Your task to perform on an android device: Go to Android settings Image 0: 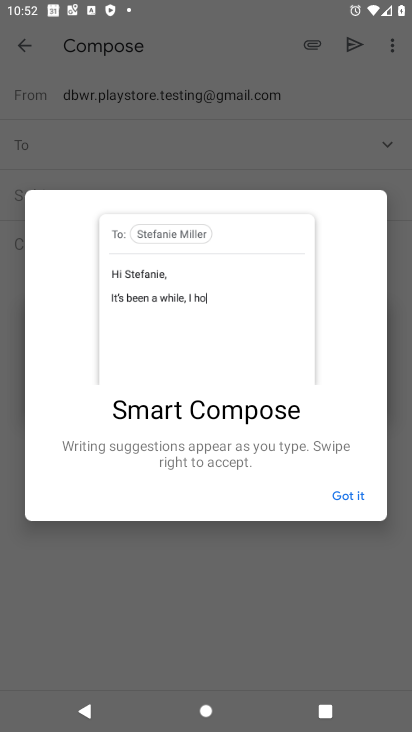
Step 0: press home button
Your task to perform on an android device: Go to Android settings Image 1: 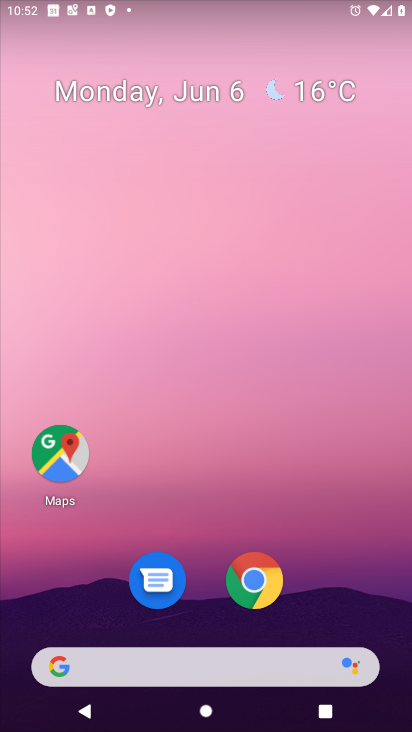
Step 1: drag from (331, 593) to (257, 69)
Your task to perform on an android device: Go to Android settings Image 2: 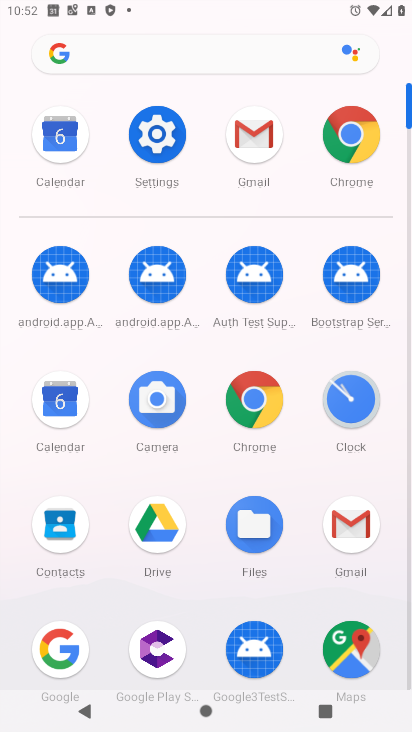
Step 2: click (182, 133)
Your task to perform on an android device: Go to Android settings Image 3: 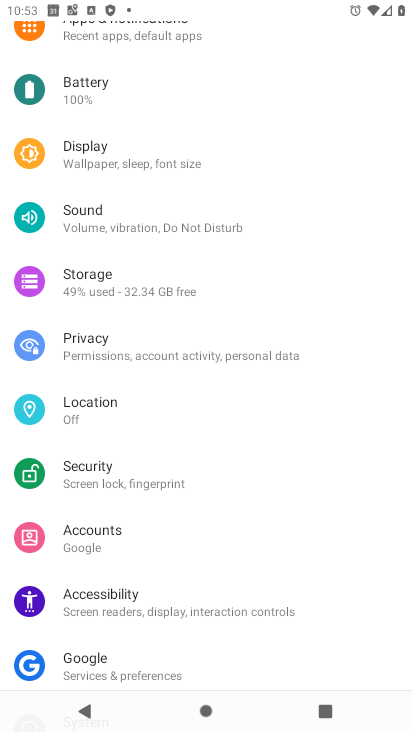
Step 3: task complete